Your task to perform on an android device: turn pop-ups on in chrome Image 0: 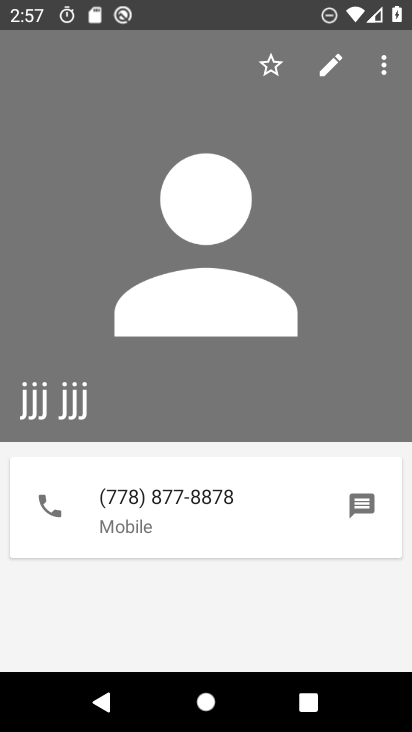
Step 0: press home button
Your task to perform on an android device: turn pop-ups on in chrome Image 1: 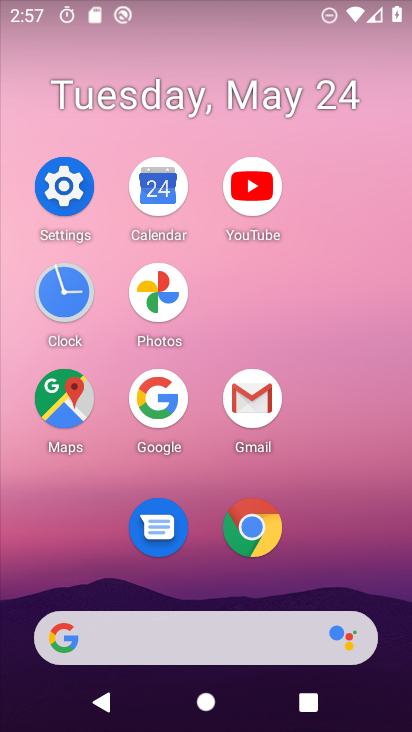
Step 1: click (256, 539)
Your task to perform on an android device: turn pop-ups on in chrome Image 2: 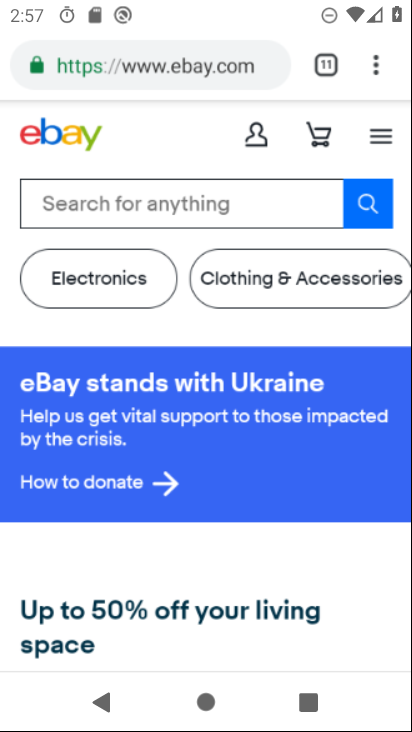
Step 2: click (383, 61)
Your task to perform on an android device: turn pop-ups on in chrome Image 3: 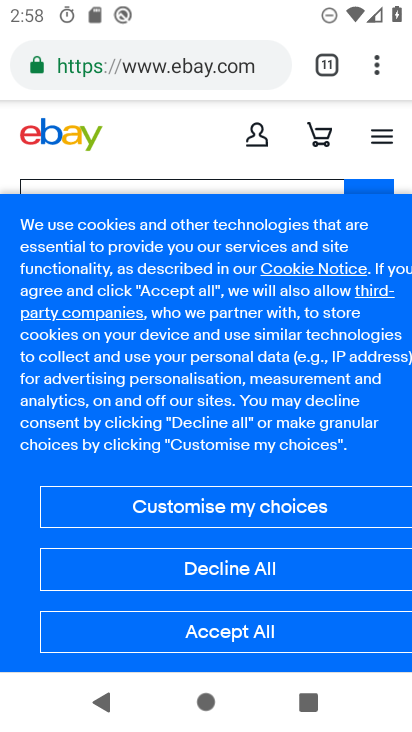
Step 3: click (382, 53)
Your task to perform on an android device: turn pop-ups on in chrome Image 4: 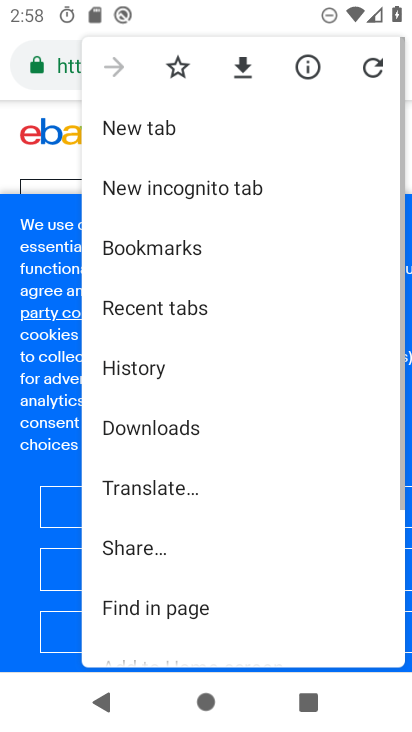
Step 4: drag from (264, 533) to (284, 178)
Your task to perform on an android device: turn pop-ups on in chrome Image 5: 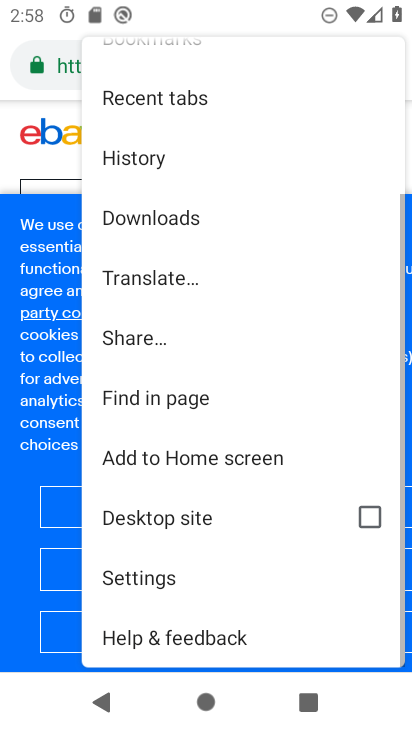
Step 5: click (205, 574)
Your task to perform on an android device: turn pop-ups on in chrome Image 6: 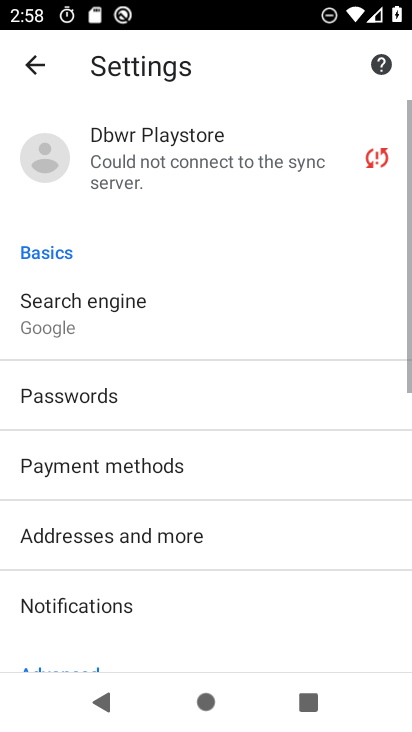
Step 6: drag from (214, 526) to (245, 213)
Your task to perform on an android device: turn pop-ups on in chrome Image 7: 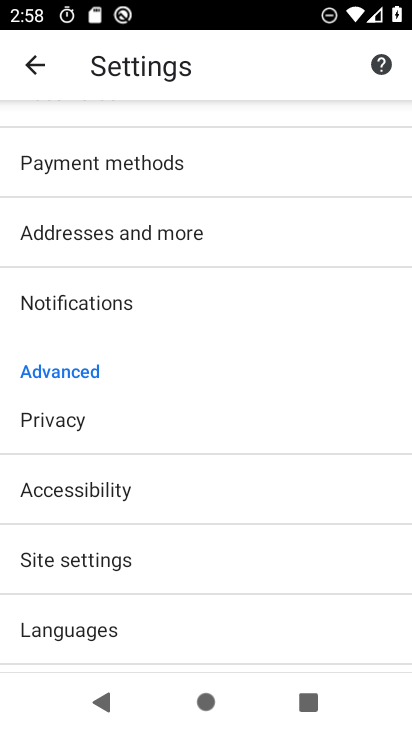
Step 7: click (202, 568)
Your task to perform on an android device: turn pop-ups on in chrome Image 8: 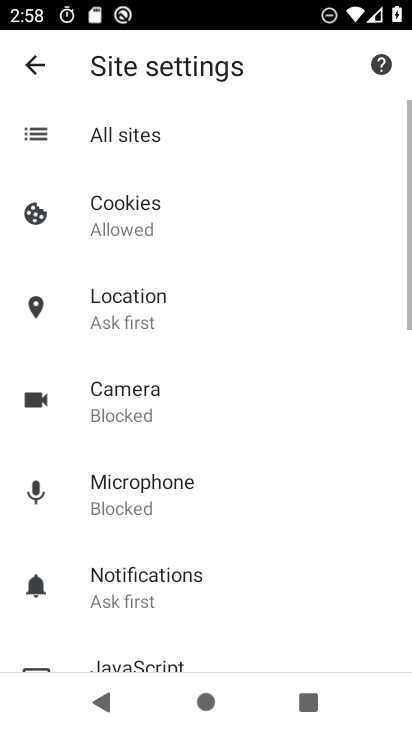
Step 8: drag from (192, 399) to (210, 159)
Your task to perform on an android device: turn pop-ups on in chrome Image 9: 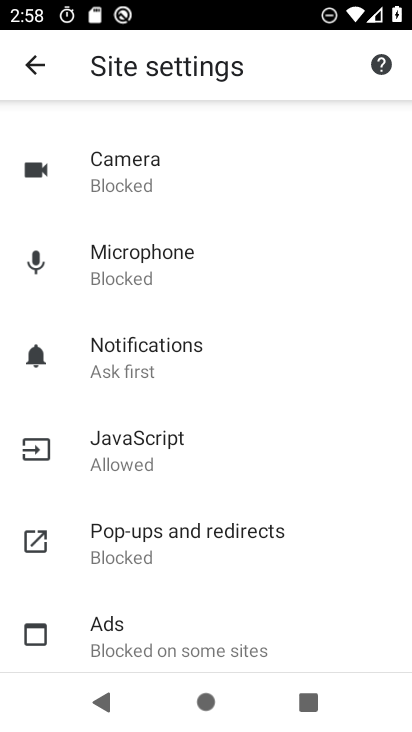
Step 9: click (208, 559)
Your task to perform on an android device: turn pop-ups on in chrome Image 10: 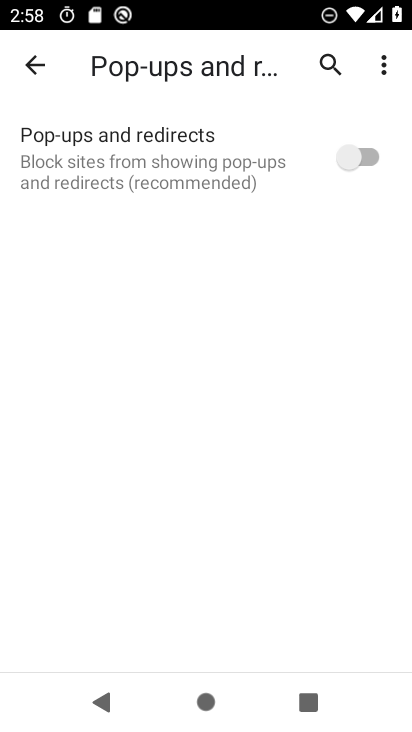
Step 10: click (356, 149)
Your task to perform on an android device: turn pop-ups on in chrome Image 11: 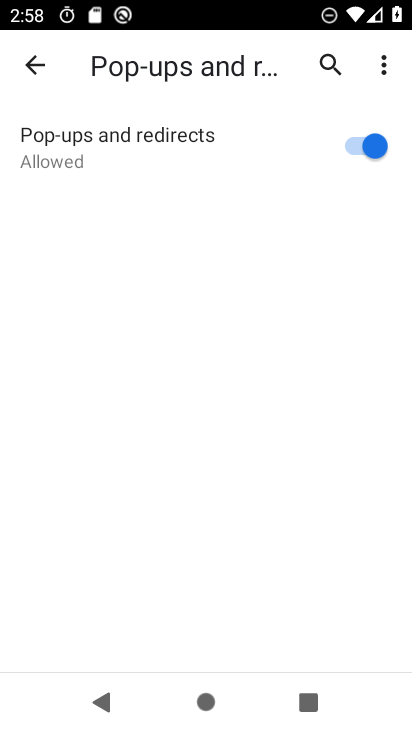
Step 11: task complete